Your task to perform on an android device: clear history in the chrome app Image 0: 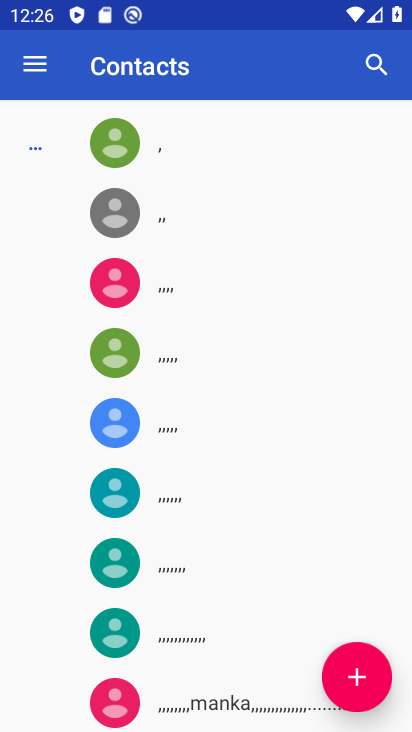
Step 0: press home button
Your task to perform on an android device: clear history in the chrome app Image 1: 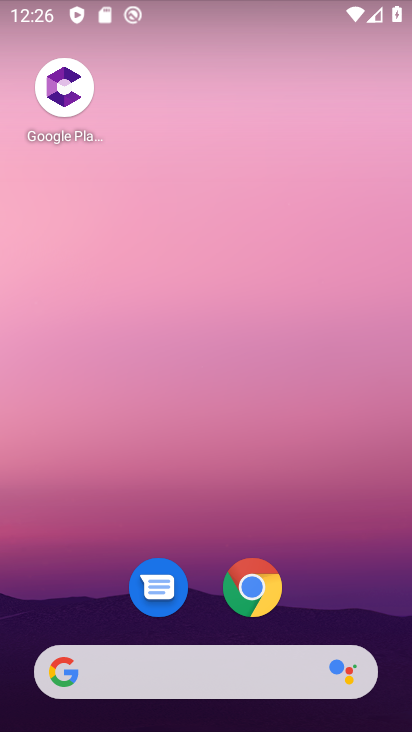
Step 1: click (253, 597)
Your task to perform on an android device: clear history in the chrome app Image 2: 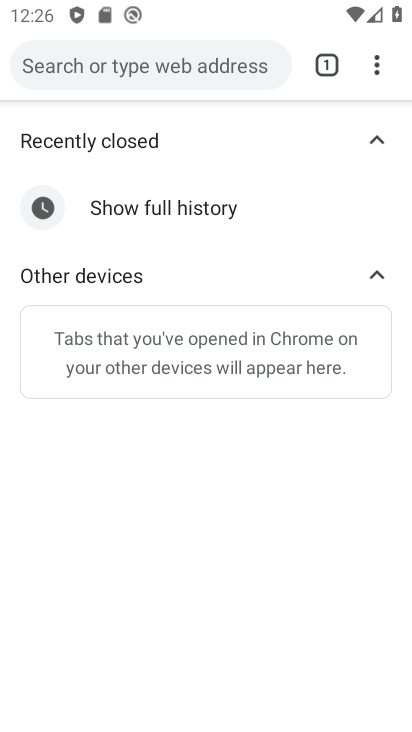
Step 2: click (377, 71)
Your task to perform on an android device: clear history in the chrome app Image 3: 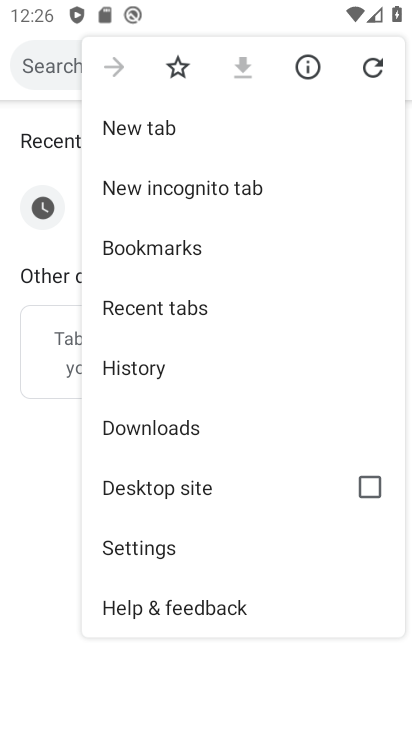
Step 3: click (138, 544)
Your task to perform on an android device: clear history in the chrome app Image 4: 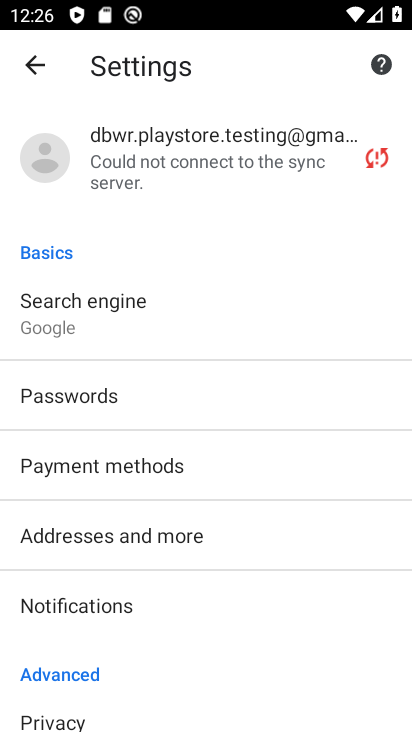
Step 4: drag from (135, 694) to (143, 364)
Your task to perform on an android device: clear history in the chrome app Image 5: 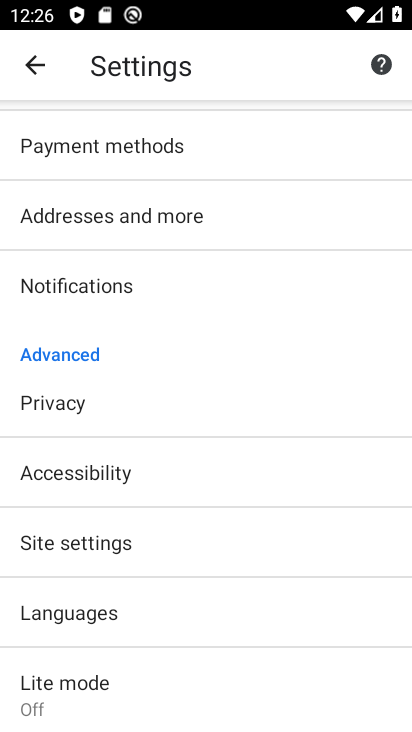
Step 5: click (66, 398)
Your task to perform on an android device: clear history in the chrome app Image 6: 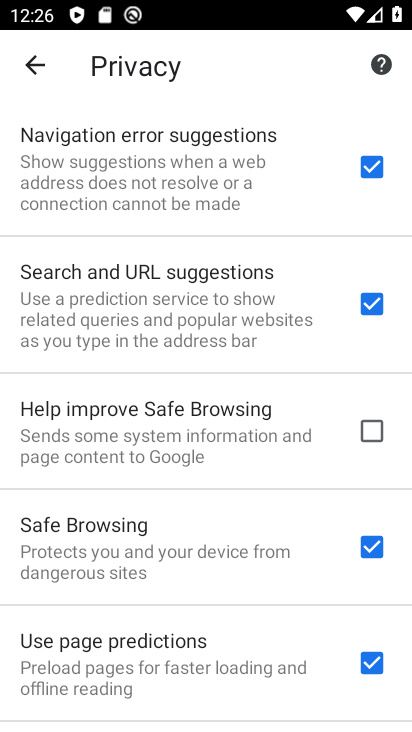
Step 6: drag from (158, 678) to (158, 203)
Your task to perform on an android device: clear history in the chrome app Image 7: 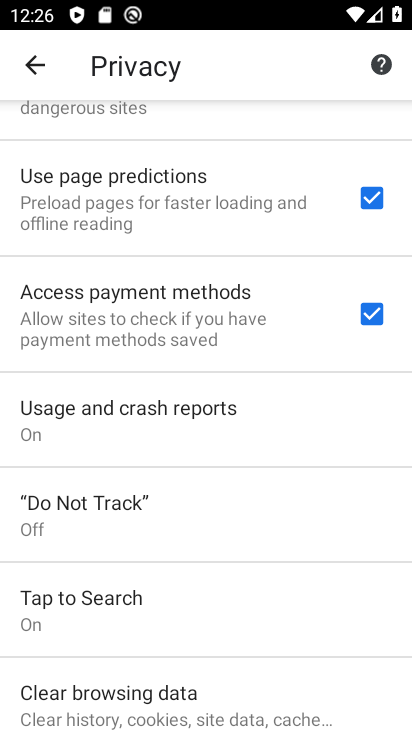
Step 7: drag from (191, 648) to (200, 216)
Your task to perform on an android device: clear history in the chrome app Image 8: 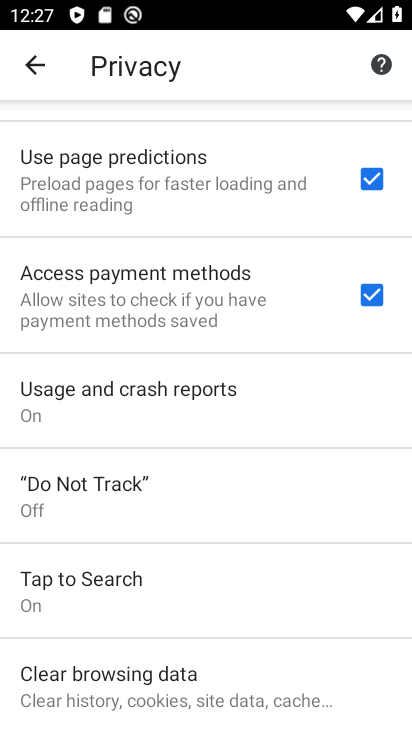
Step 8: click (131, 679)
Your task to perform on an android device: clear history in the chrome app Image 9: 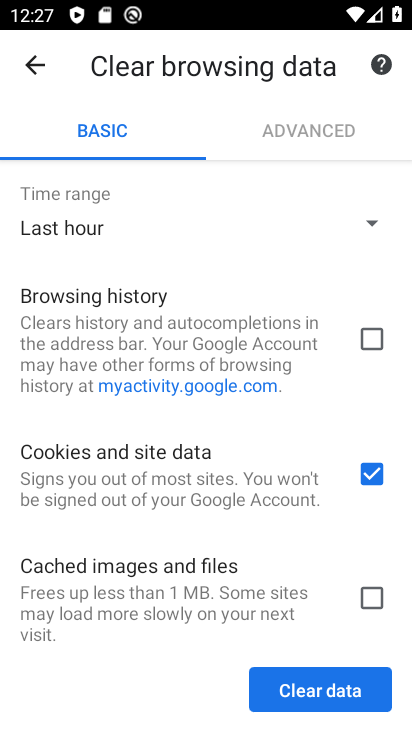
Step 9: click (372, 478)
Your task to perform on an android device: clear history in the chrome app Image 10: 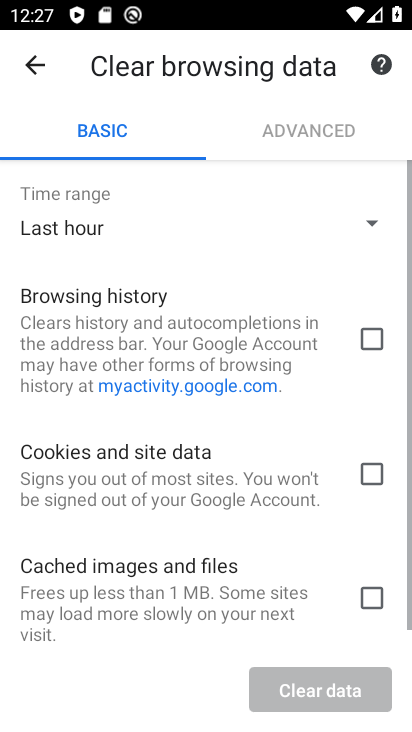
Step 10: click (371, 334)
Your task to perform on an android device: clear history in the chrome app Image 11: 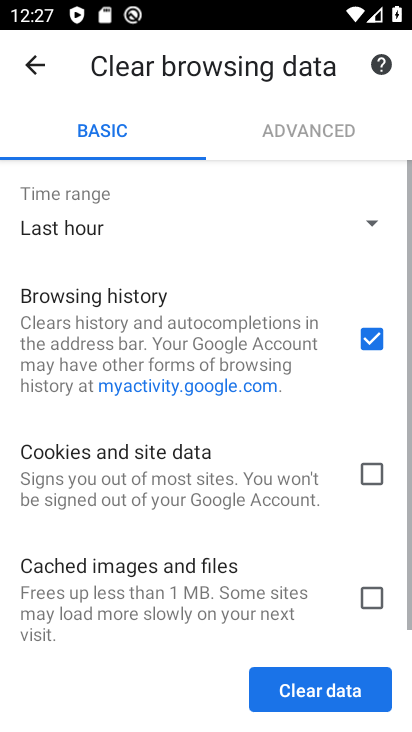
Step 11: click (309, 694)
Your task to perform on an android device: clear history in the chrome app Image 12: 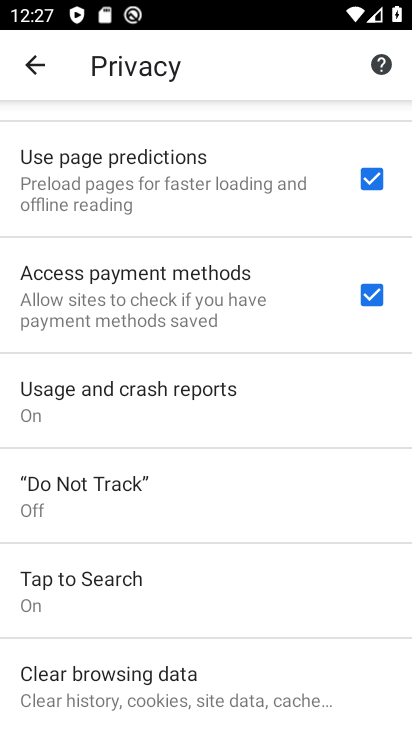
Step 12: task complete